Your task to perform on an android device: uninstall "Pandora - Music & Podcasts" Image 0: 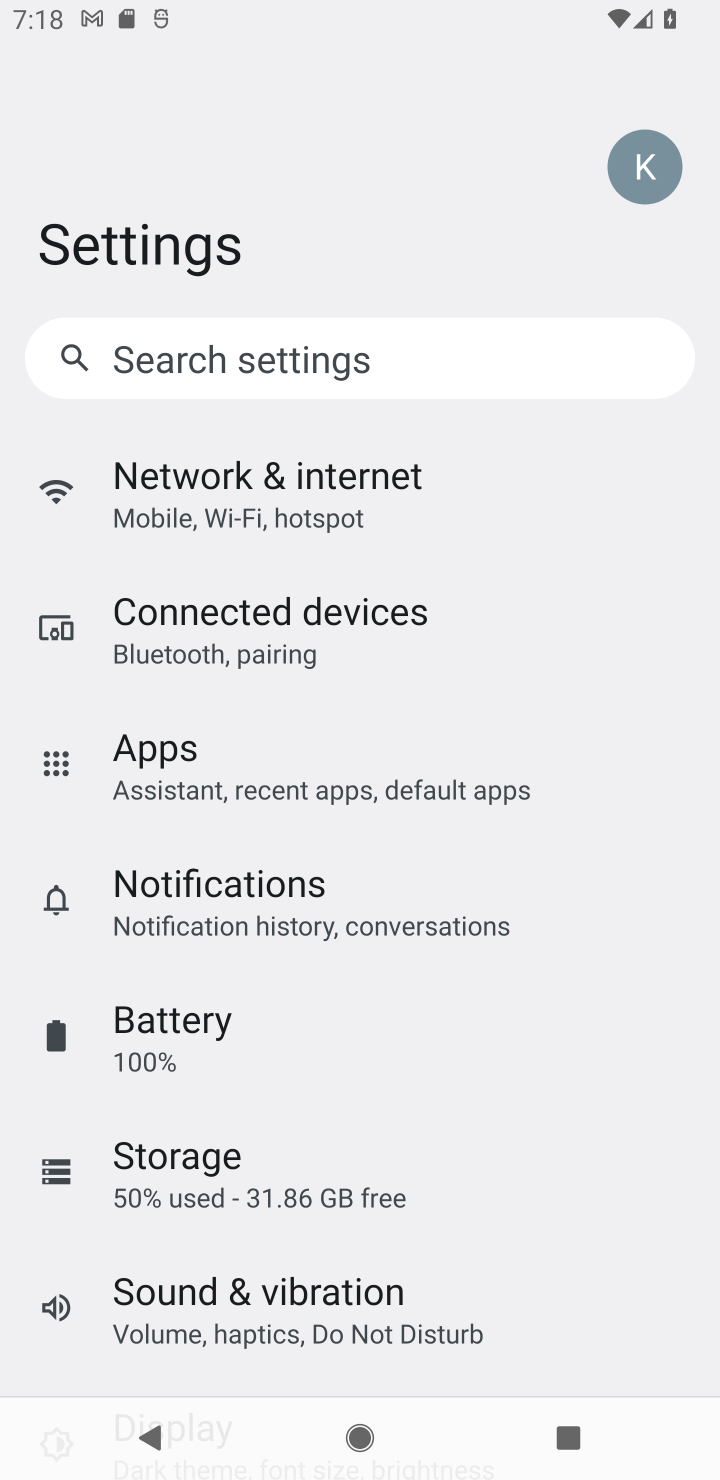
Step 0: press home button
Your task to perform on an android device: uninstall "Pandora - Music & Podcasts" Image 1: 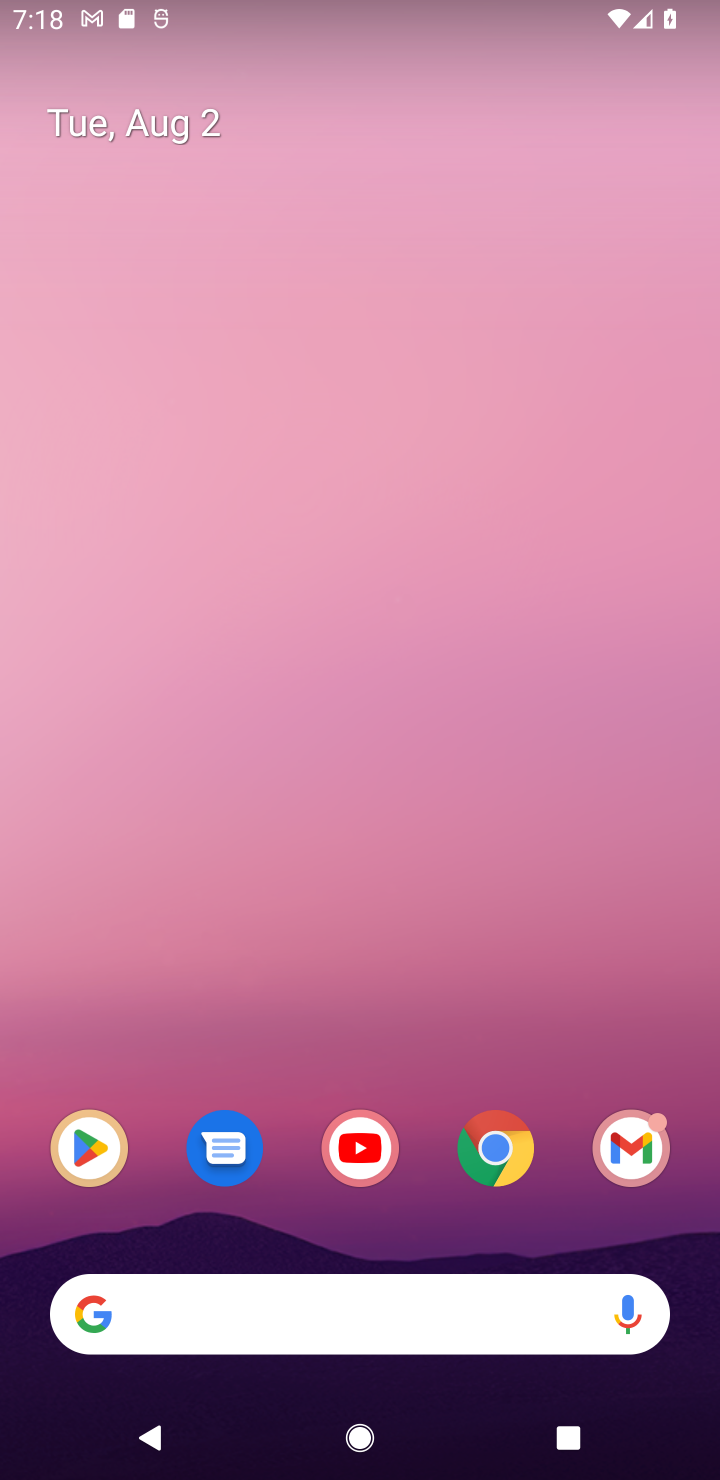
Step 1: drag from (678, 1243) to (202, 96)
Your task to perform on an android device: uninstall "Pandora - Music & Podcasts" Image 2: 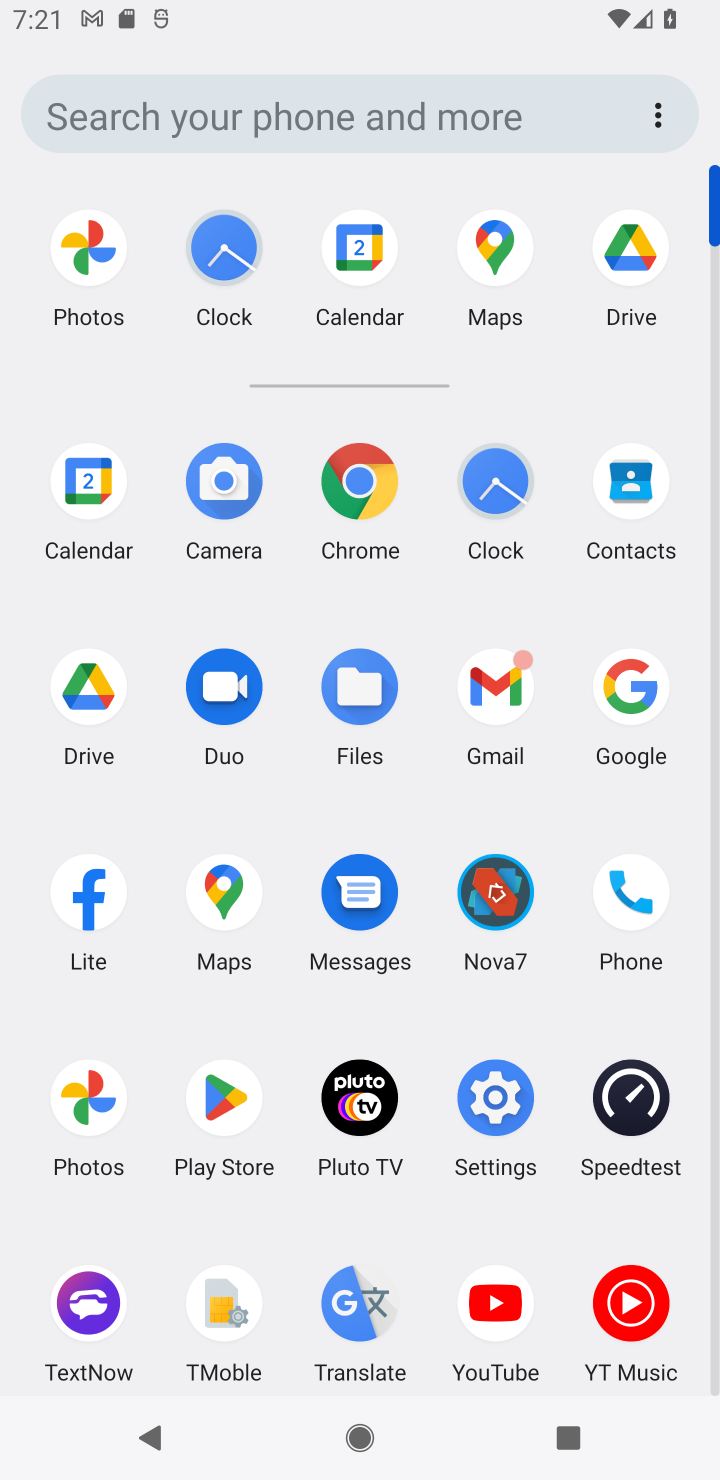
Step 2: click (218, 1129)
Your task to perform on an android device: uninstall "Pandora - Music & Podcasts" Image 3: 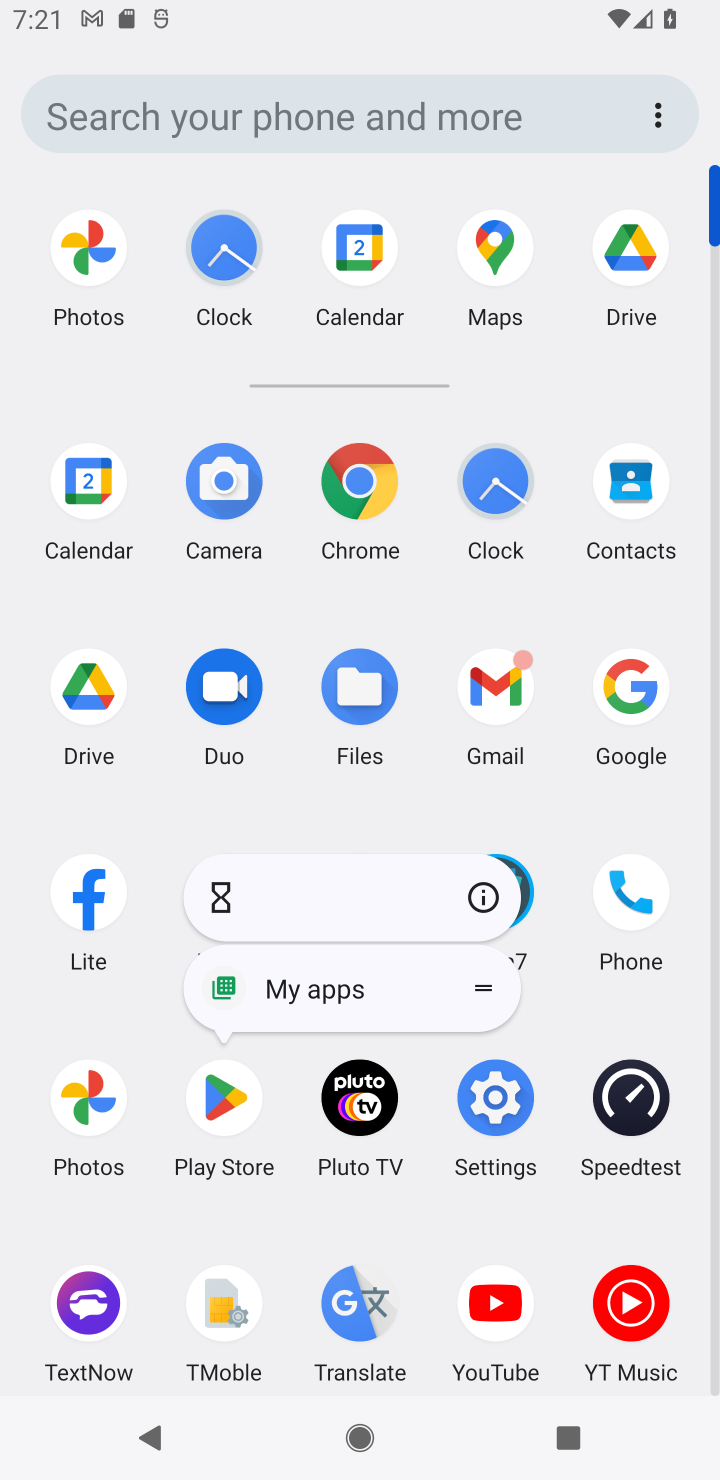
Step 3: click (216, 1112)
Your task to perform on an android device: uninstall "Pandora - Music & Podcasts" Image 4: 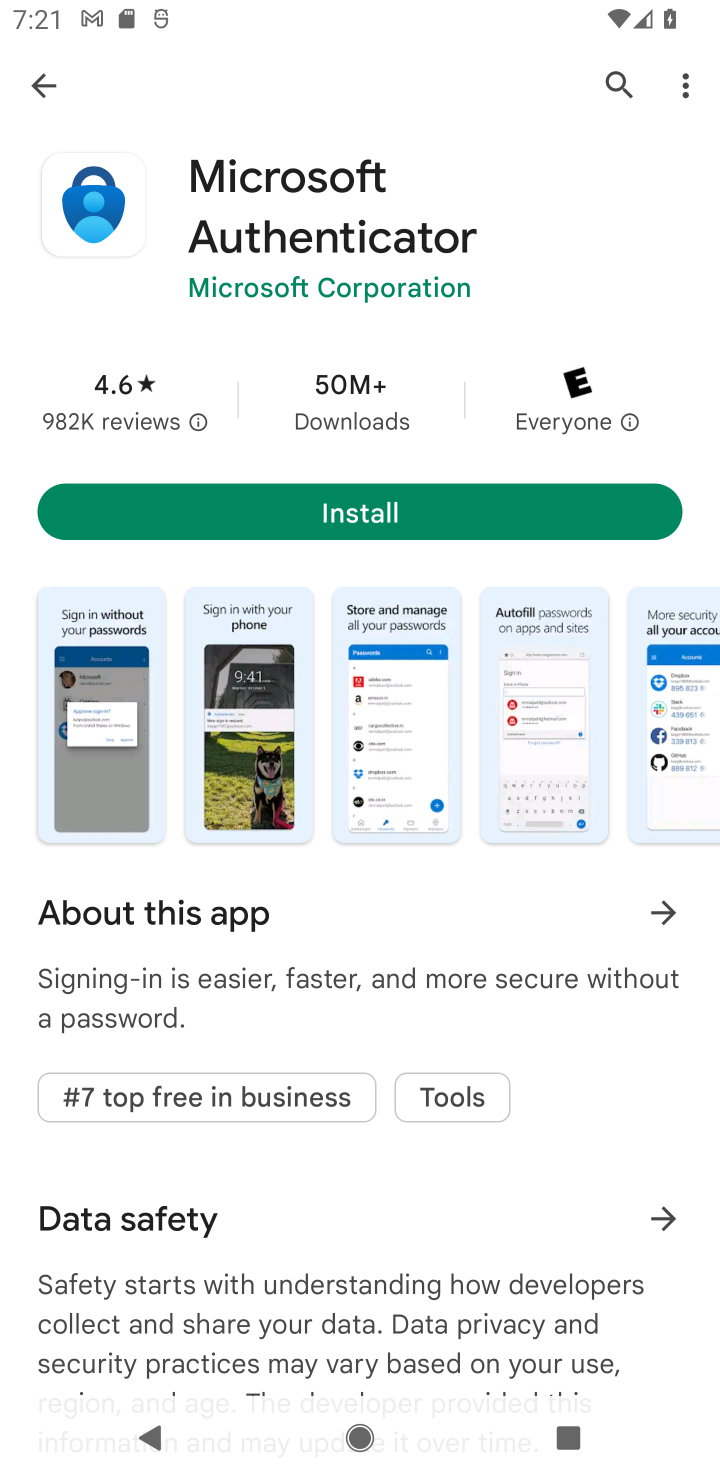
Step 4: press back button
Your task to perform on an android device: uninstall "Pandora - Music & Podcasts" Image 5: 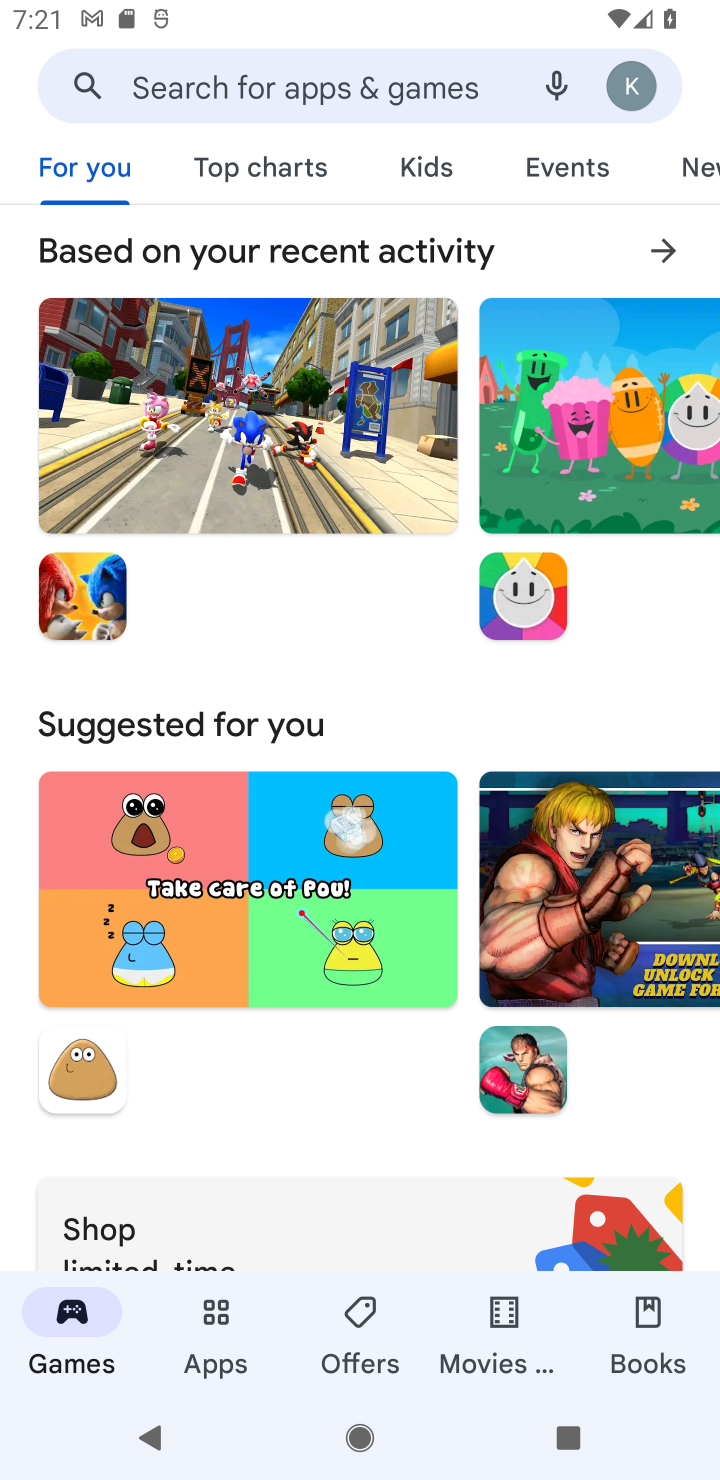
Step 5: click (314, 78)
Your task to perform on an android device: uninstall "Pandora - Music & Podcasts" Image 6: 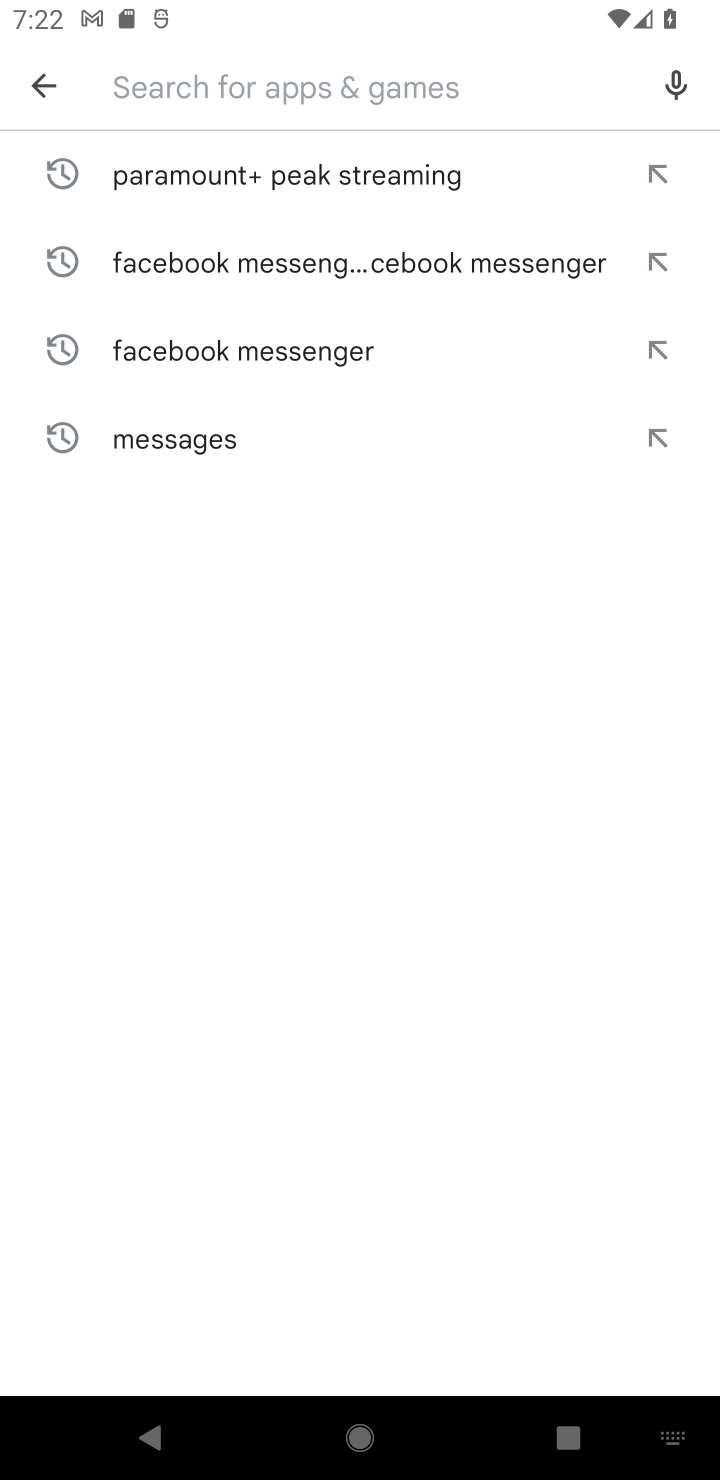
Step 6: type "Pandora - Music & Podcasts"
Your task to perform on an android device: uninstall "Pandora - Music & Podcasts" Image 7: 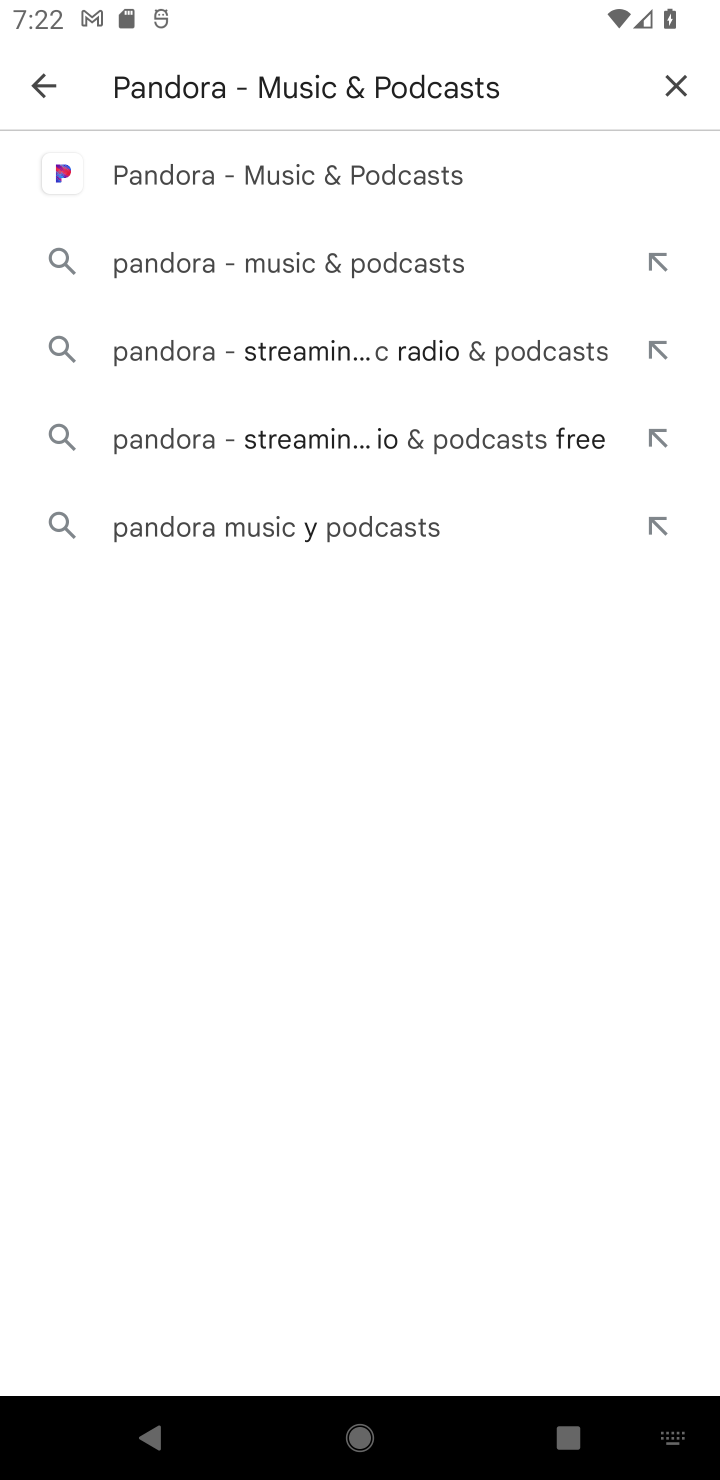
Step 7: click (317, 177)
Your task to perform on an android device: uninstall "Pandora - Music & Podcasts" Image 8: 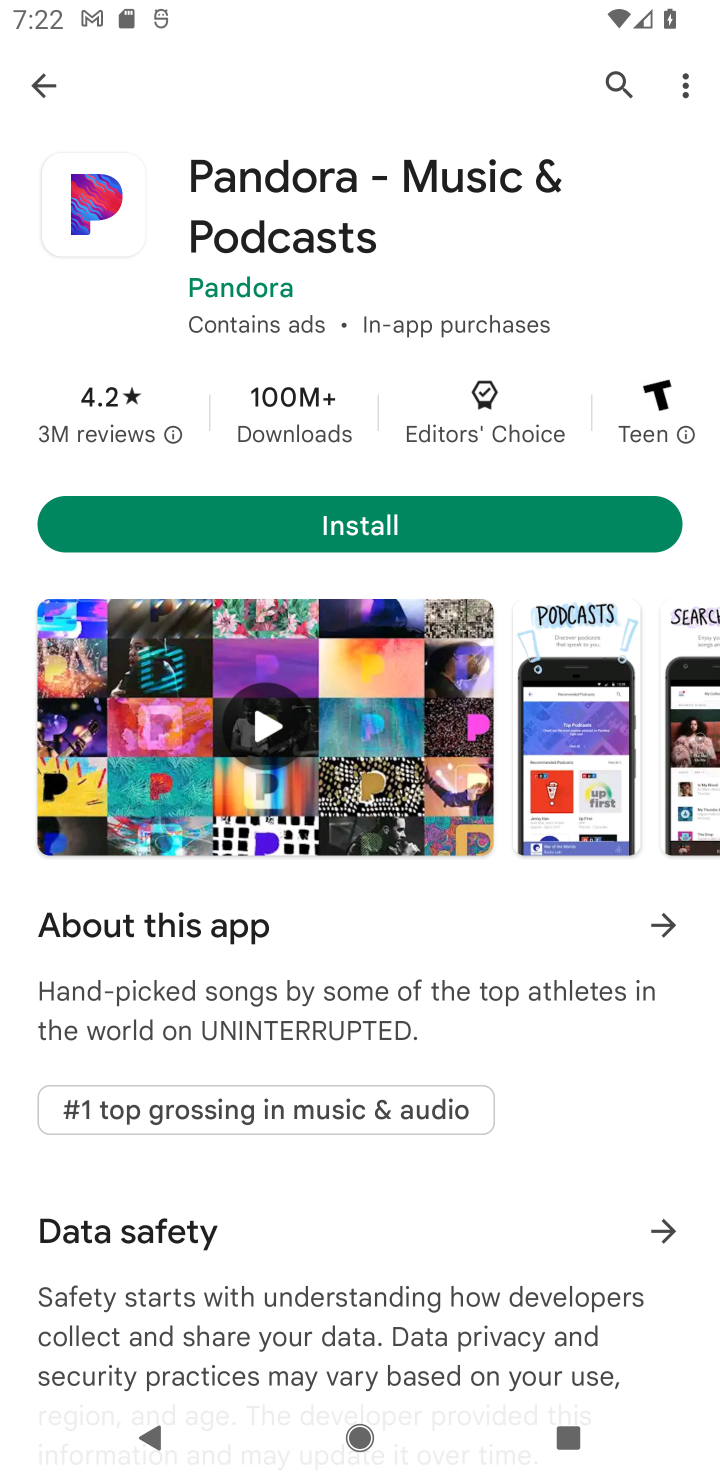
Step 8: task complete